Your task to perform on an android device: Open my contact list Image 0: 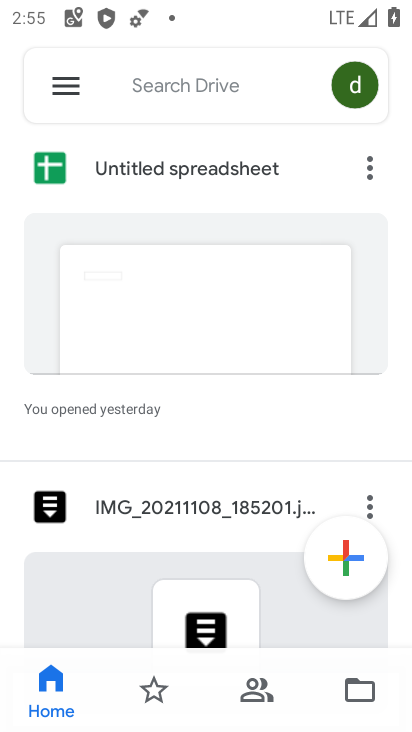
Step 0: press back button
Your task to perform on an android device: Open my contact list Image 1: 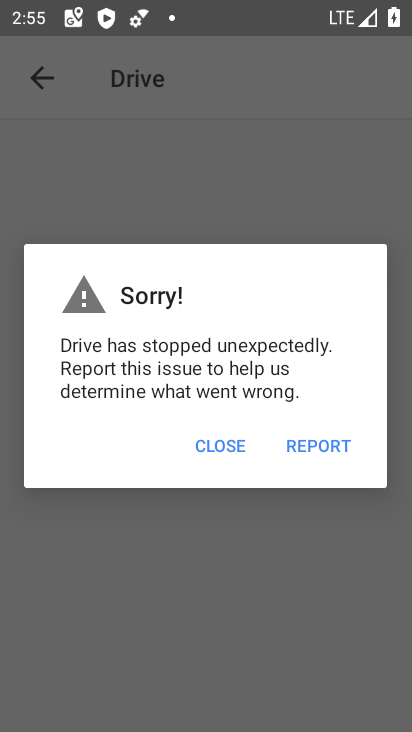
Step 1: click (197, 449)
Your task to perform on an android device: Open my contact list Image 2: 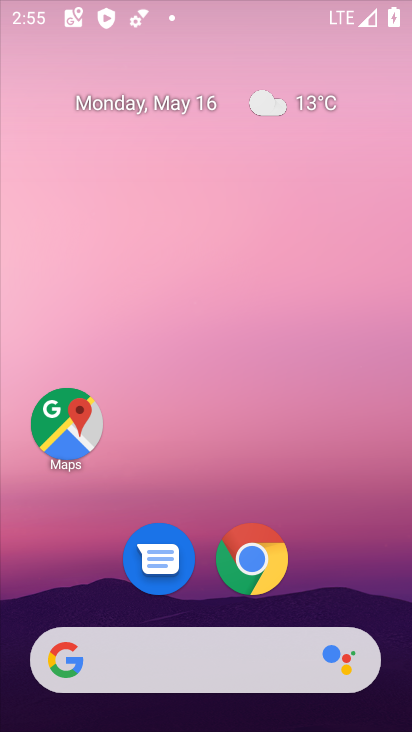
Step 2: press home button
Your task to perform on an android device: Open my contact list Image 3: 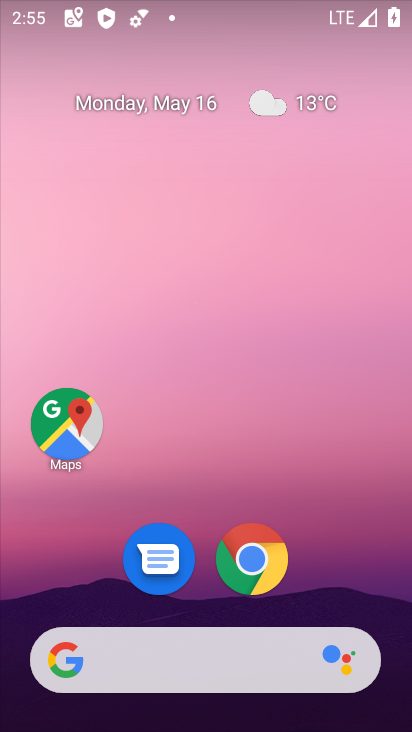
Step 3: drag from (198, 501) to (219, 15)
Your task to perform on an android device: Open my contact list Image 4: 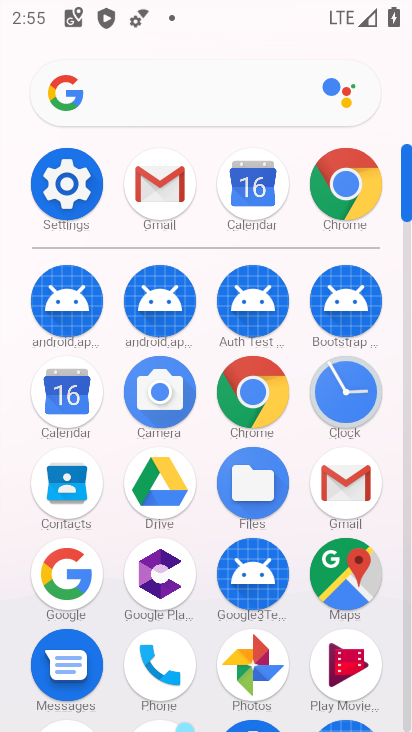
Step 4: drag from (197, 632) to (269, 195)
Your task to perform on an android device: Open my contact list Image 5: 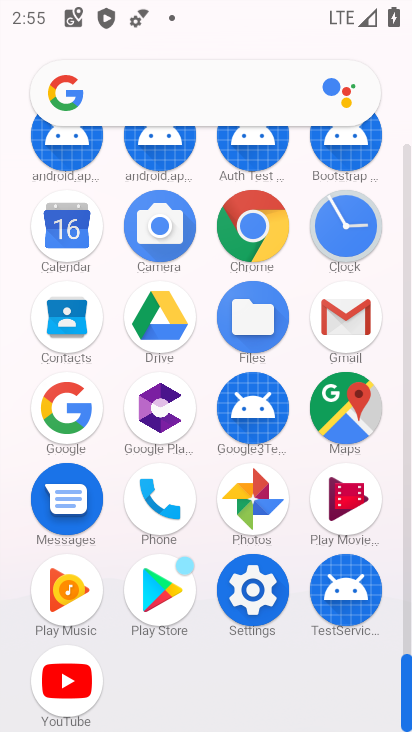
Step 5: click (45, 310)
Your task to perform on an android device: Open my contact list Image 6: 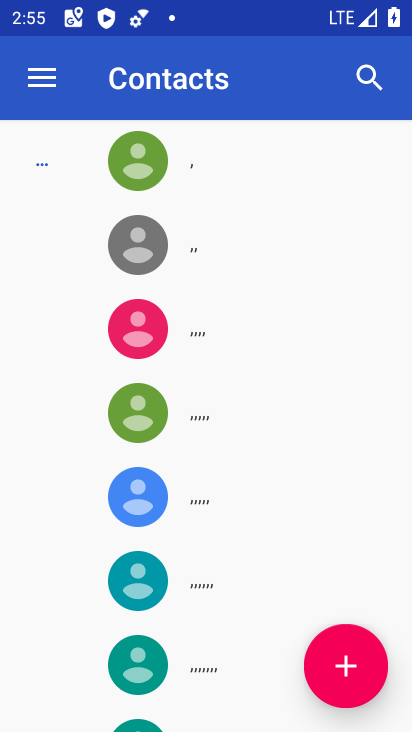
Step 6: task complete